Your task to perform on an android device: Go to location settings Image 0: 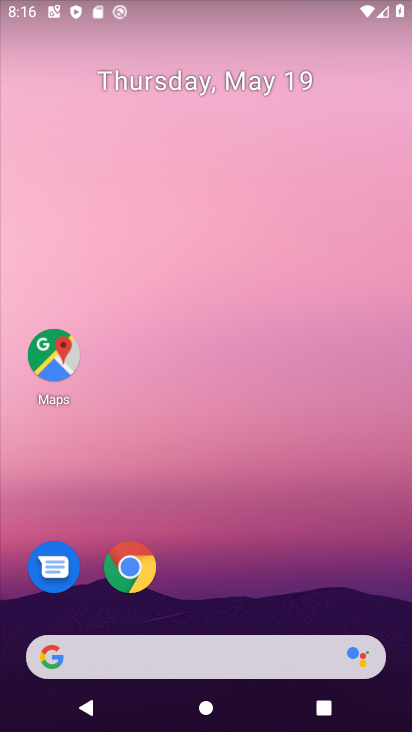
Step 0: drag from (211, 609) to (165, 198)
Your task to perform on an android device: Go to location settings Image 1: 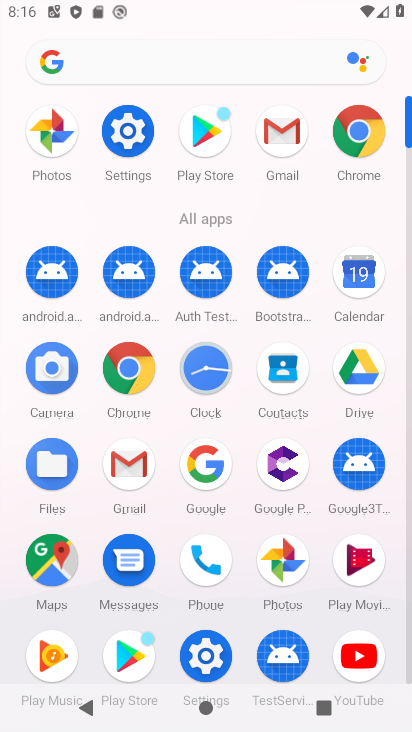
Step 1: click (144, 132)
Your task to perform on an android device: Go to location settings Image 2: 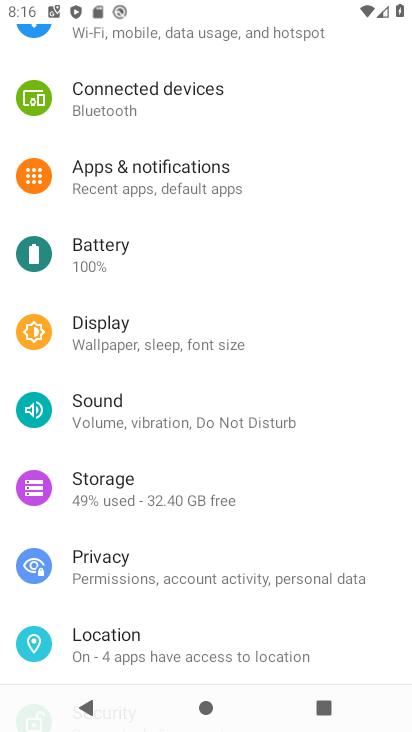
Step 2: click (194, 632)
Your task to perform on an android device: Go to location settings Image 3: 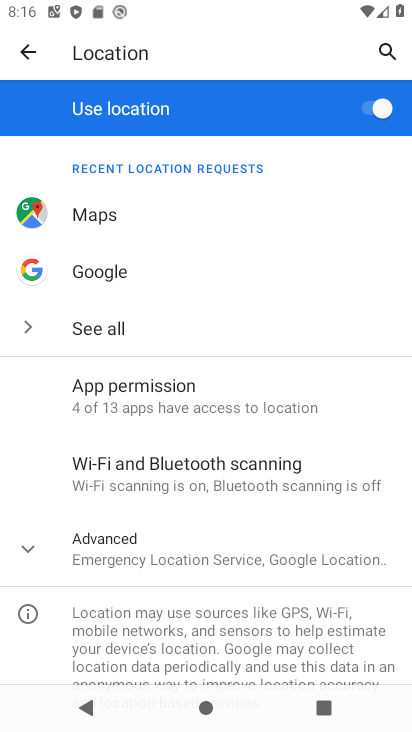
Step 3: task complete